Your task to perform on an android device: Go to location settings Image 0: 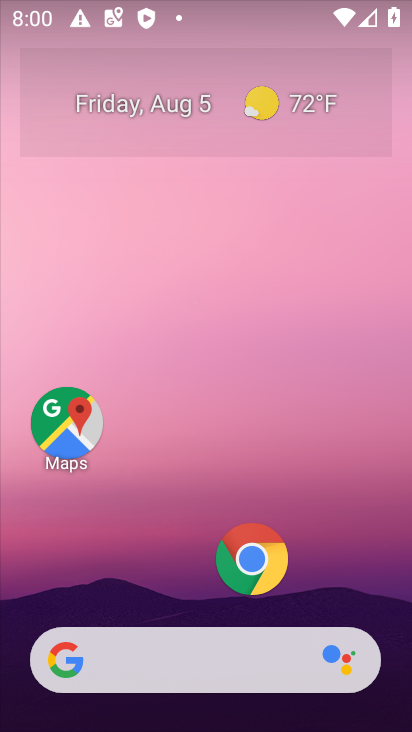
Step 0: drag from (159, 548) to (221, 32)
Your task to perform on an android device: Go to location settings Image 1: 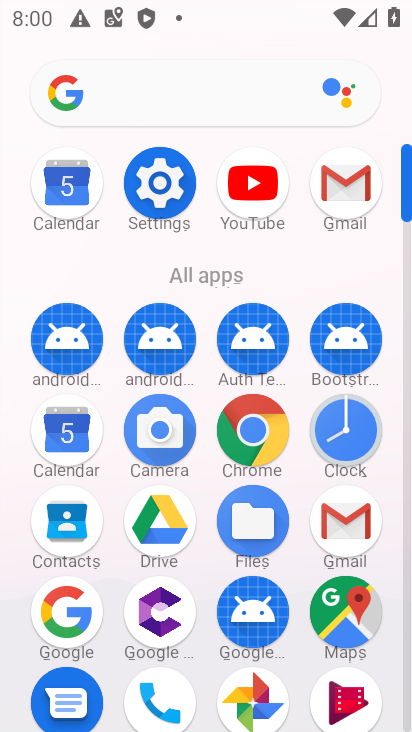
Step 1: click (161, 206)
Your task to perform on an android device: Go to location settings Image 2: 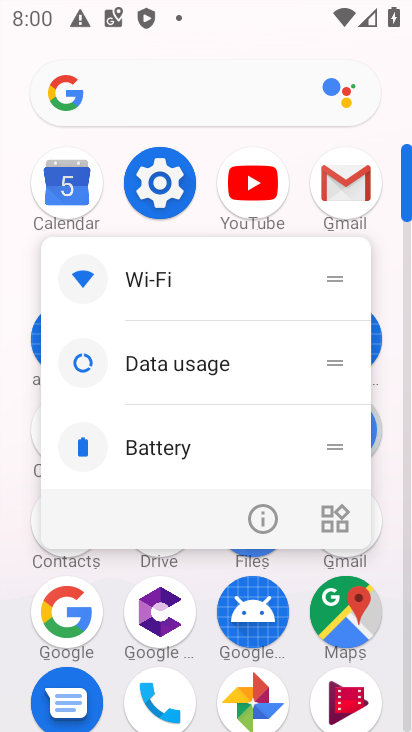
Step 2: click (160, 194)
Your task to perform on an android device: Go to location settings Image 3: 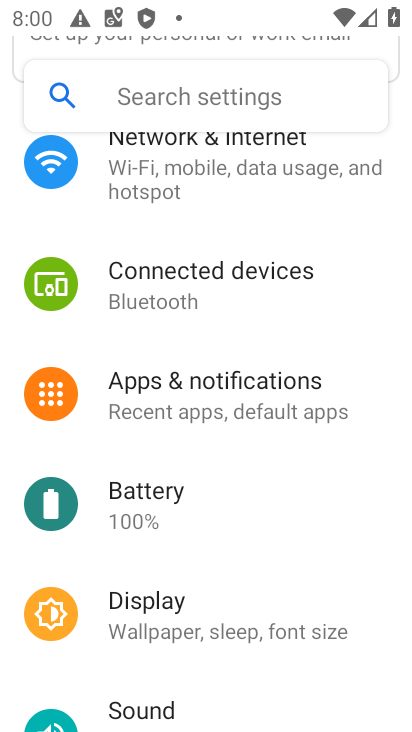
Step 3: drag from (199, 613) to (201, 316)
Your task to perform on an android device: Go to location settings Image 4: 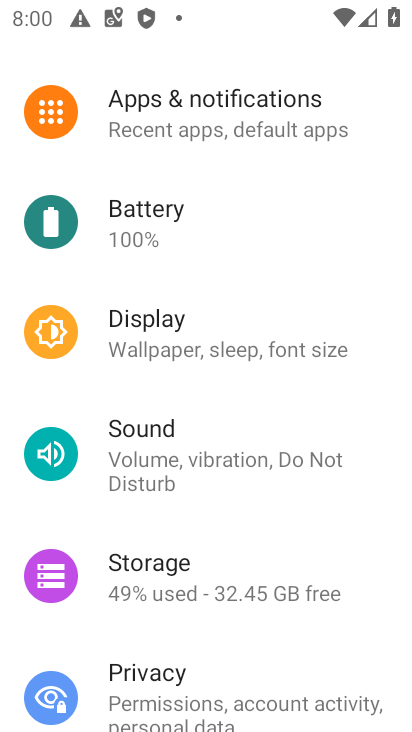
Step 4: drag from (187, 567) to (199, 167)
Your task to perform on an android device: Go to location settings Image 5: 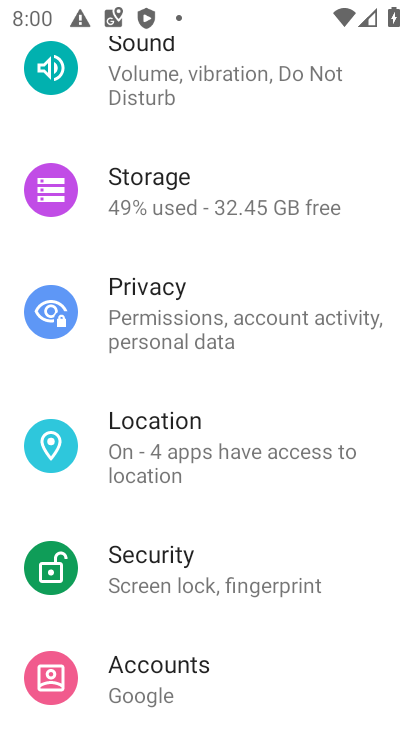
Step 5: click (165, 461)
Your task to perform on an android device: Go to location settings Image 6: 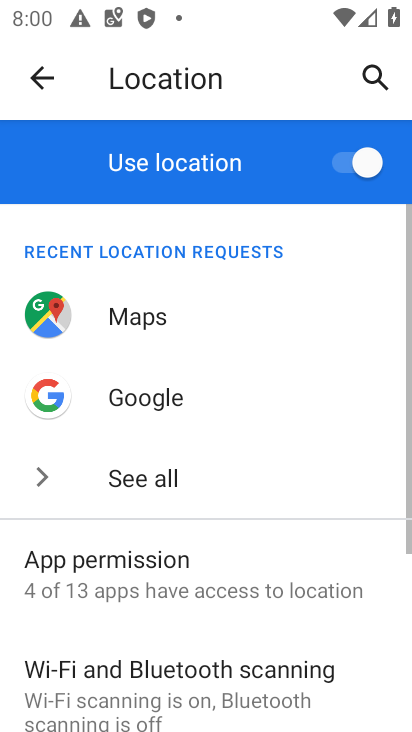
Step 6: task complete